Your task to perform on an android device: turn smart compose on in the gmail app Image 0: 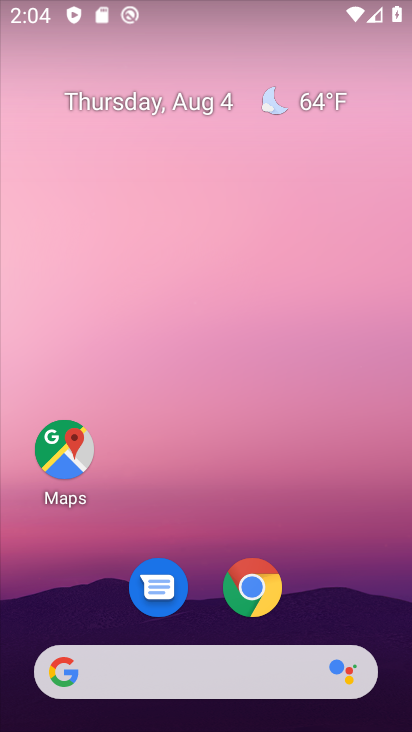
Step 0: drag from (309, 523) to (283, 22)
Your task to perform on an android device: turn smart compose on in the gmail app Image 1: 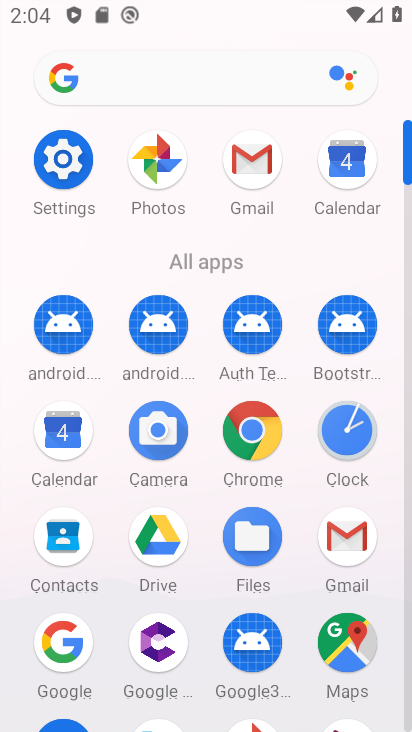
Step 1: click (239, 157)
Your task to perform on an android device: turn smart compose on in the gmail app Image 2: 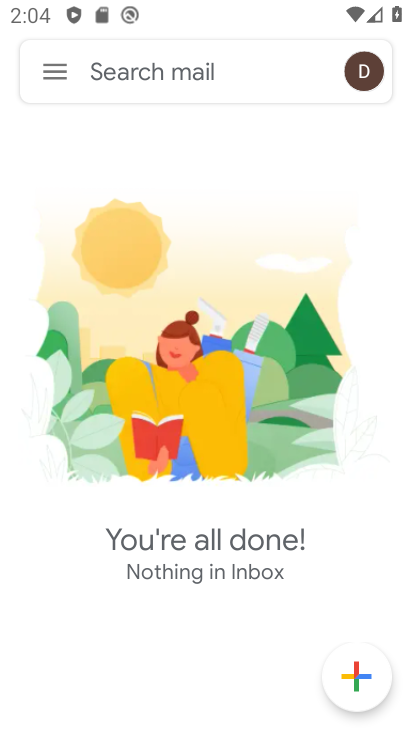
Step 2: click (43, 71)
Your task to perform on an android device: turn smart compose on in the gmail app Image 3: 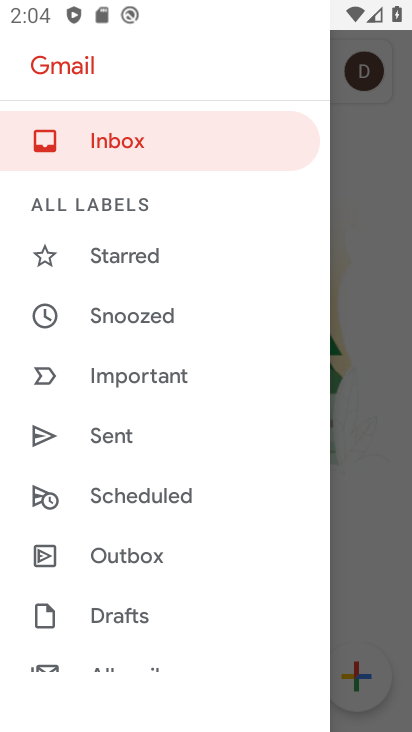
Step 3: drag from (185, 583) to (187, 125)
Your task to perform on an android device: turn smart compose on in the gmail app Image 4: 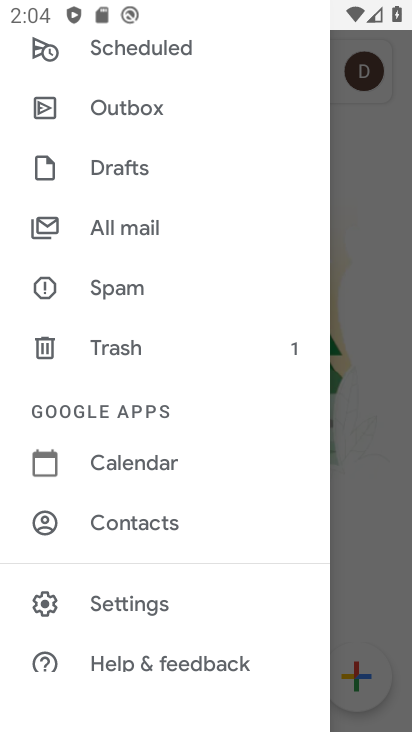
Step 4: click (127, 595)
Your task to perform on an android device: turn smart compose on in the gmail app Image 5: 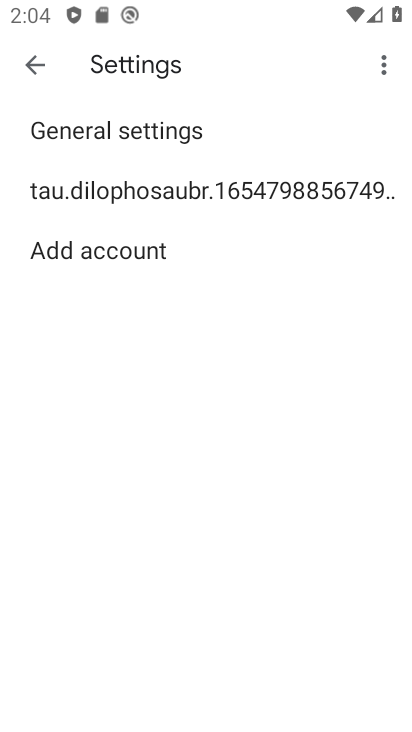
Step 5: click (82, 189)
Your task to perform on an android device: turn smart compose on in the gmail app Image 6: 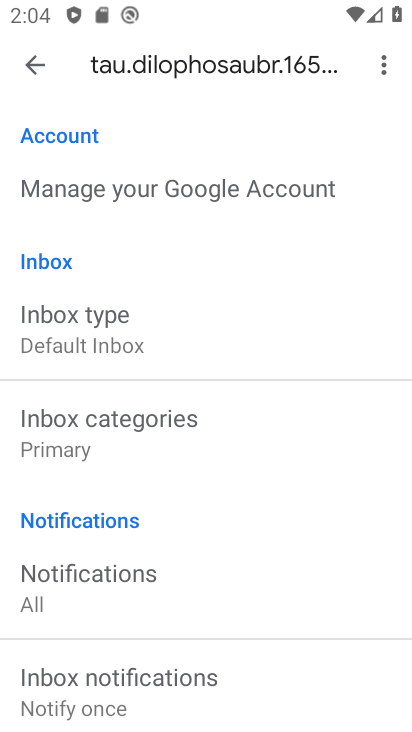
Step 6: task complete